Your task to perform on an android device: check battery use Image 0: 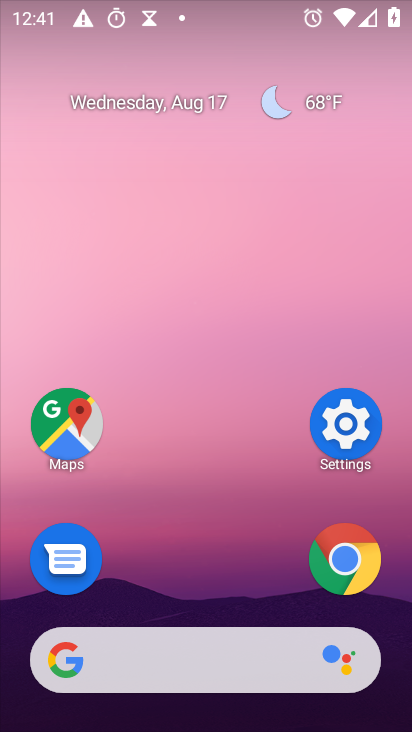
Step 0: click (343, 421)
Your task to perform on an android device: check battery use Image 1: 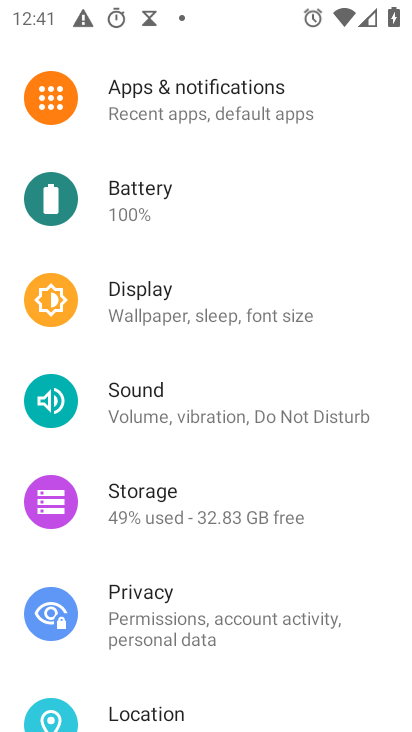
Step 1: click (135, 199)
Your task to perform on an android device: check battery use Image 2: 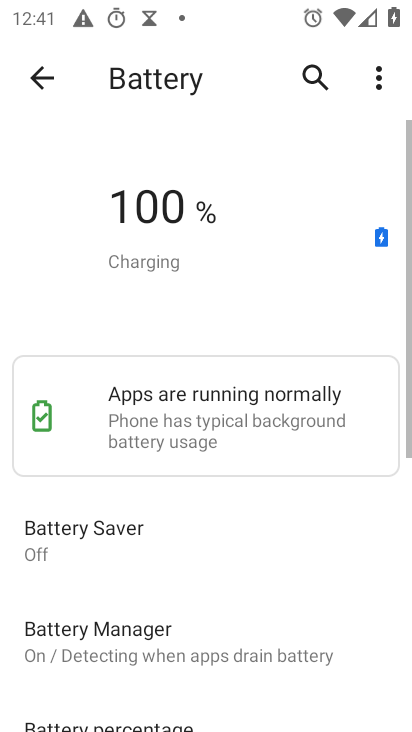
Step 2: click (384, 74)
Your task to perform on an android device: check battery use Image 3: 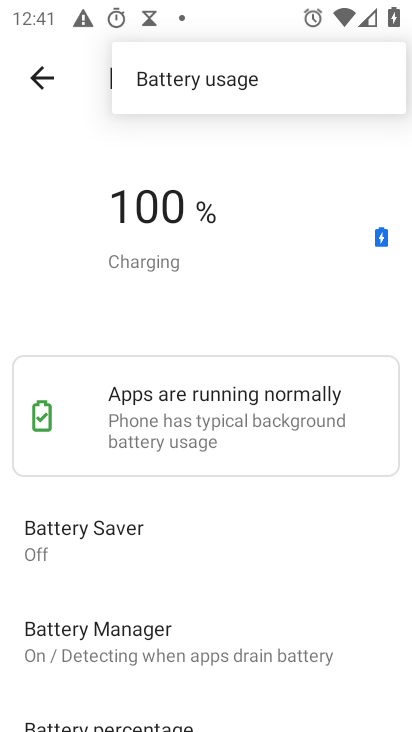
Step 3: click (277, 79)
Your task to perform on an android device: check battery use Image 4: 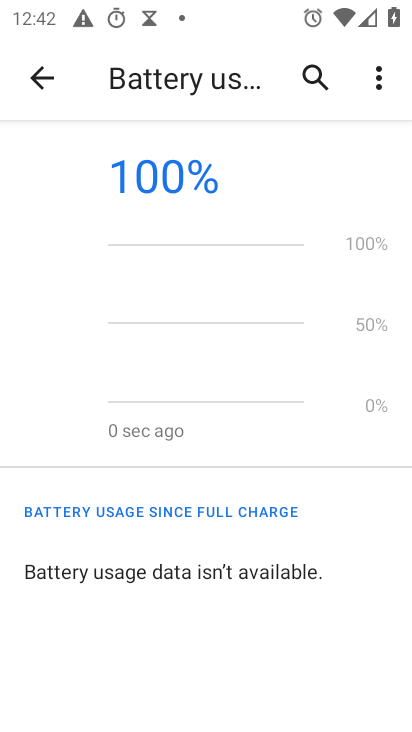
Step 4: task complete